Your task to perform on an android device: check battery use Image 0: 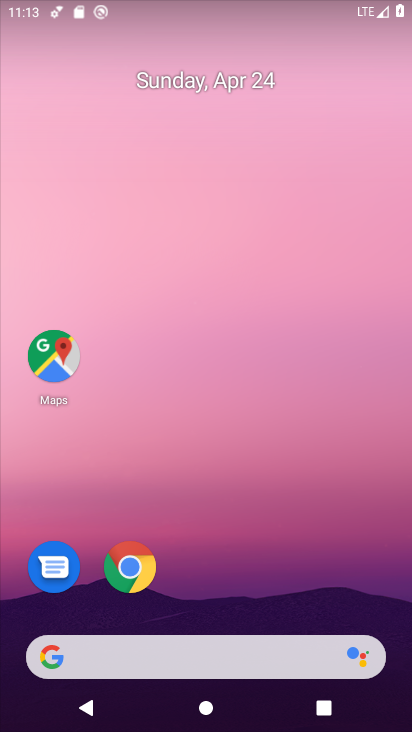
Step 0: drag from (328, 506) to (364, 43)
Your task to perform on an android device: check battery use Image 1: 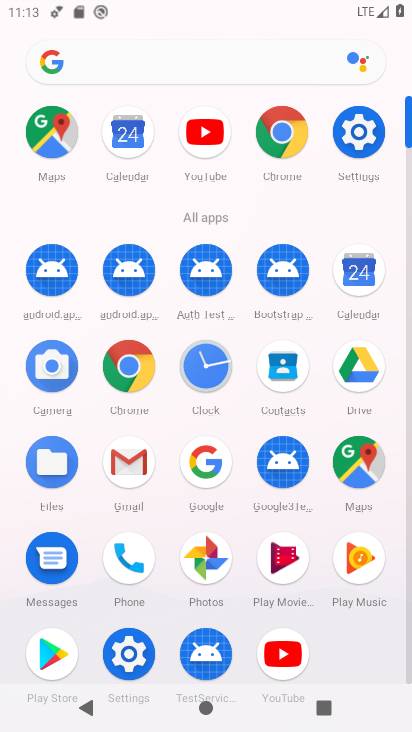
Step 1: drag from (399, 259) to (375, 185)
Your task to perform on an android device: check battery use Image 2: 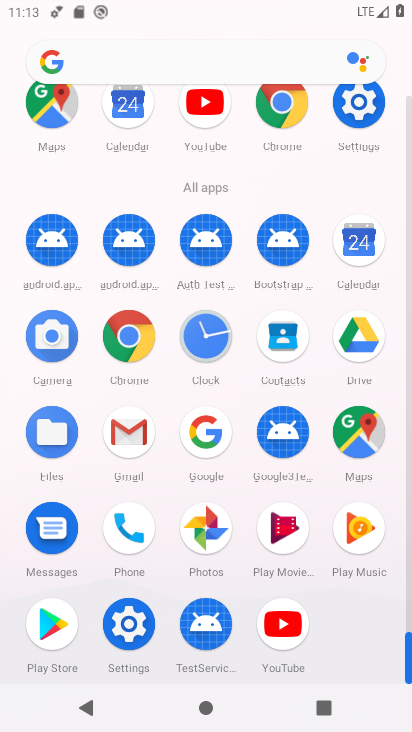
Step 2: click (367, 150)
Your task to perform on an android device: check battery use Image 3: 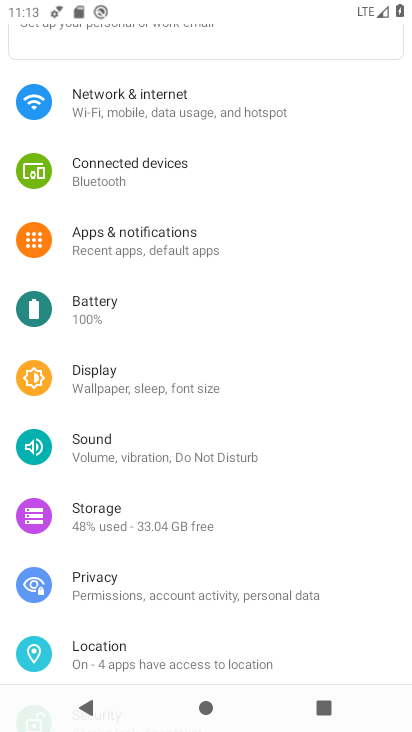
Step 3: click (196, 301)
Your task to perform on an android device: check battery use Image 4: 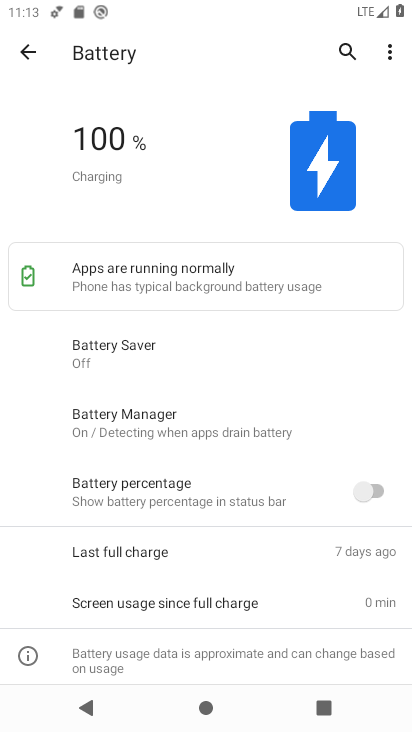
Step 4: task complete